Your task to perform on an android device: Open Google Chrome and open the bookmarks view Image 0: 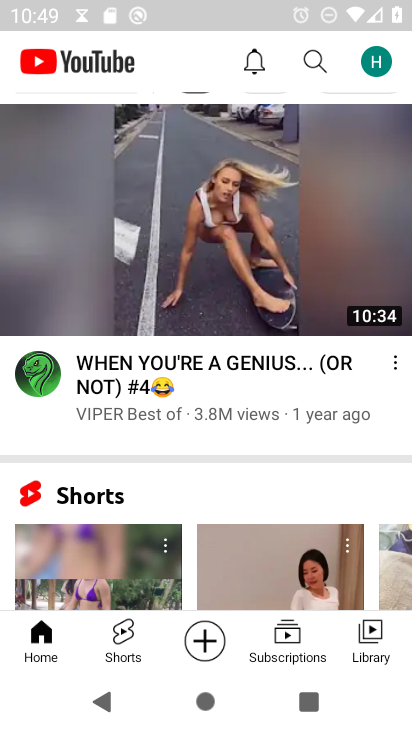
Step 0: press home button
Your task to perform on an android device: Open Google Chrome and open the bookmarks view Image 1: 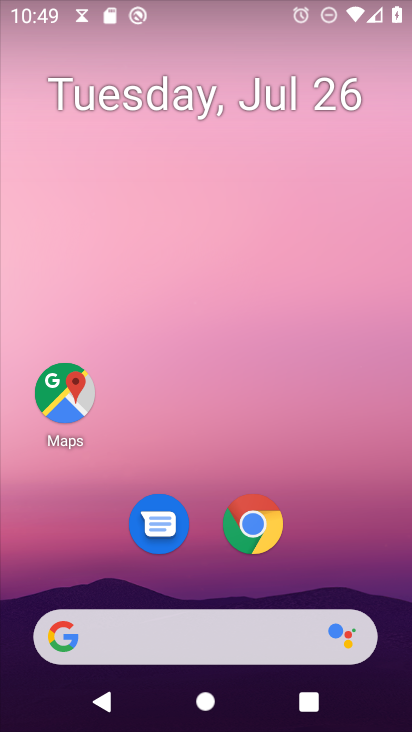
Step 1: click (264, 520)
Your task to perform on an android device: Open Google Chrome and open the bookmarks view Image 2: 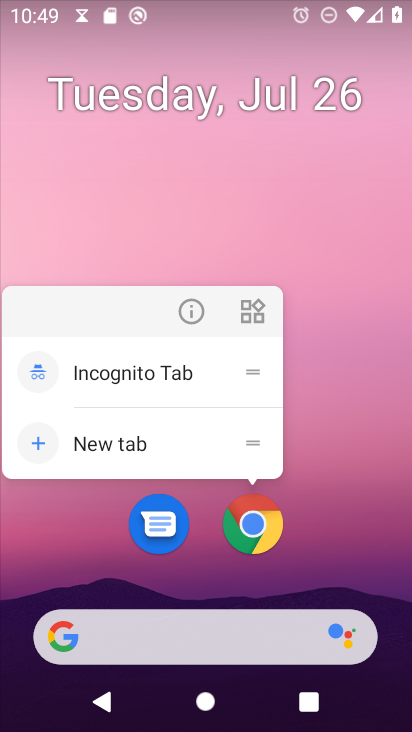
Step 2: click (254, 518)
Your task to perform on an android device: Open Google Chrome and open the bookmarks view Image 3: 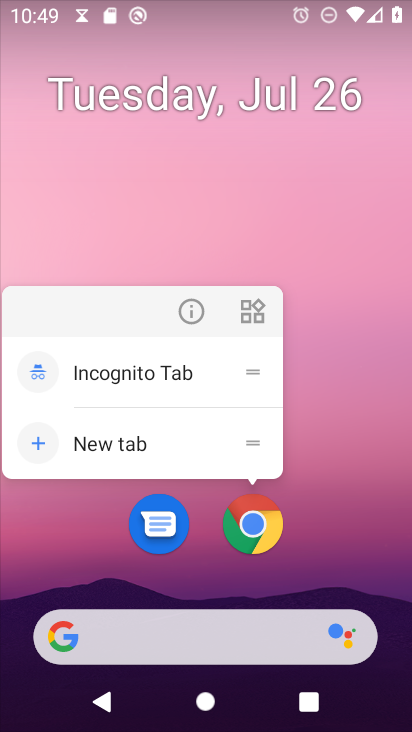
Step 3: click (256, 518)
Your task to perform on an android device: Open Google Chrome and open the bookmarks view Image 4: 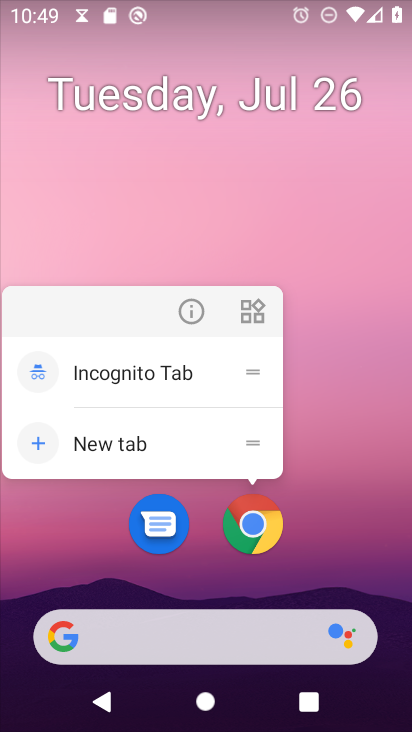
Step 4: click (253, 522)
Your task to perform on an android device: Open Google Chrome and open the bookmarks view Image 5: 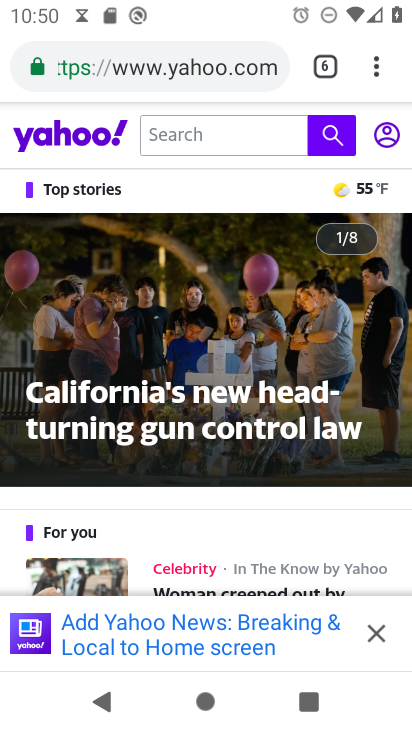
Step 5: task complete